Your task to perform on an android device: Open battery settings Image 0: 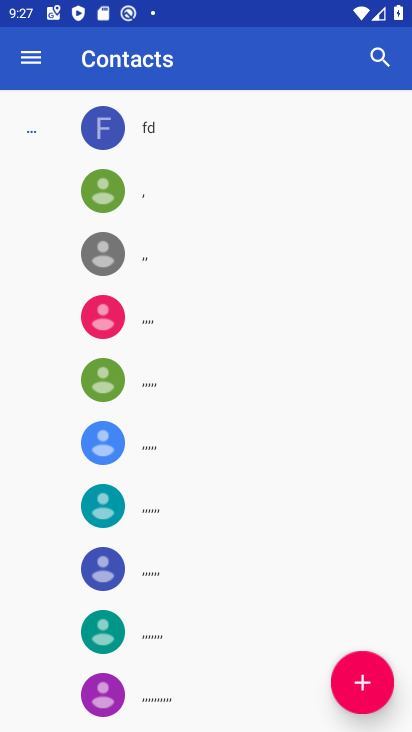
Step 0: click (401, 18)
Your task to perform on an android device: Open battery settings Image 1: 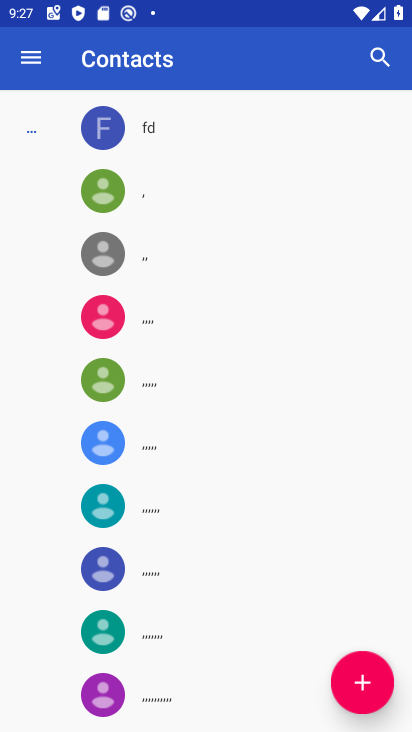
Step 1: click (308, 6)
Your task to perform on an android device: Open battery settings Image 2: 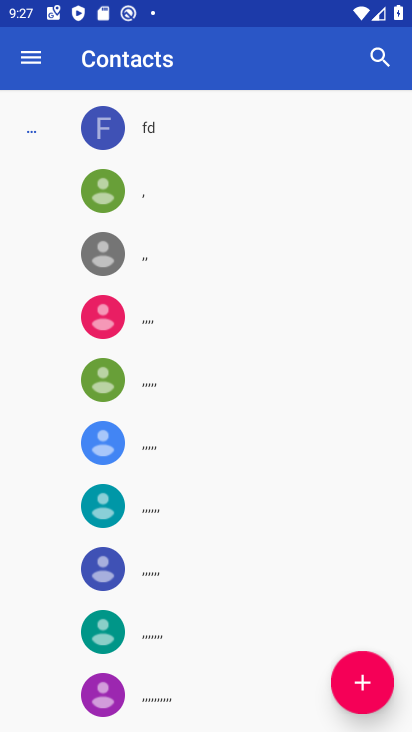
Step 2: click (308, 6)
Your task to perform on an android device: Open battery settings Image 3: 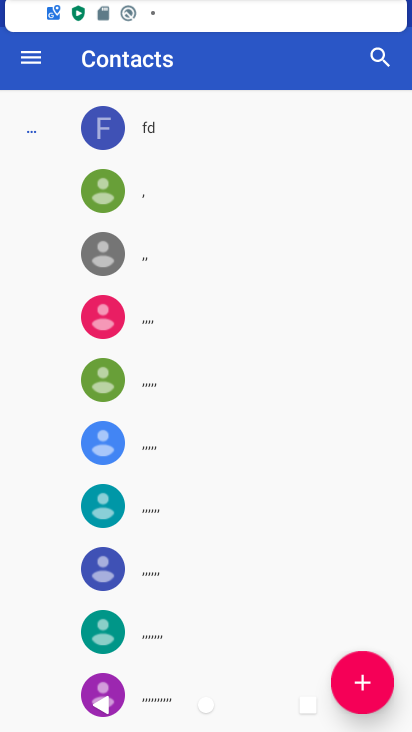
Step 3: click (308, 6)
Your task to perform on an android device: Open battery settings Image 4: 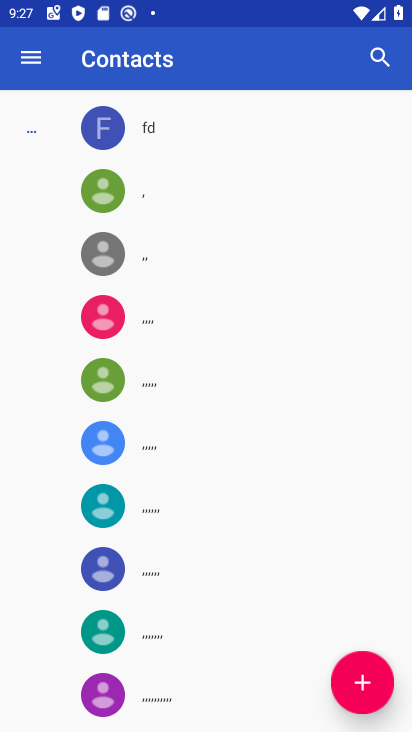
Step 4: click (308, 6)
Your task to perform on an android device: Open battery settings Image 5: 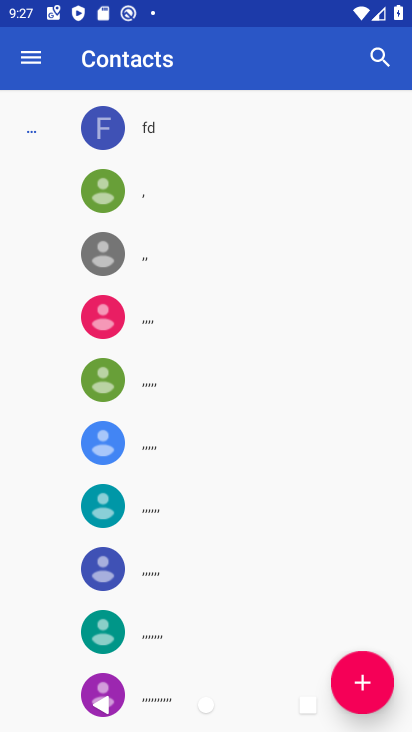
Step 5: drag from (308, 6) to (362, 383)
Your task to perform on an android device: Open battery settings Image 6: 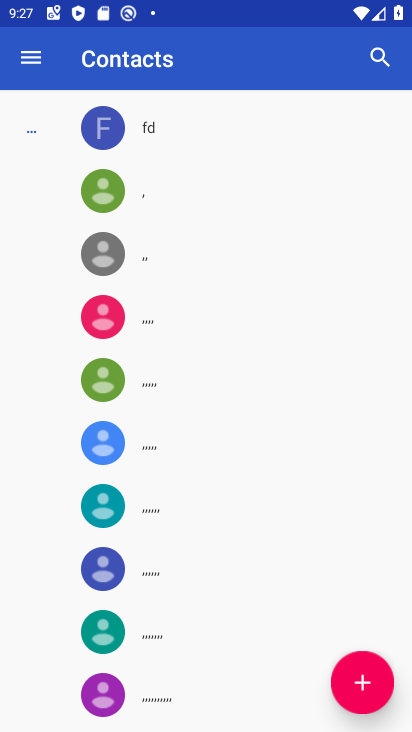
Step 6: drag from (230, 10) to (258, 341)
Your task to perform on an android device: Open battery settings Image 7: 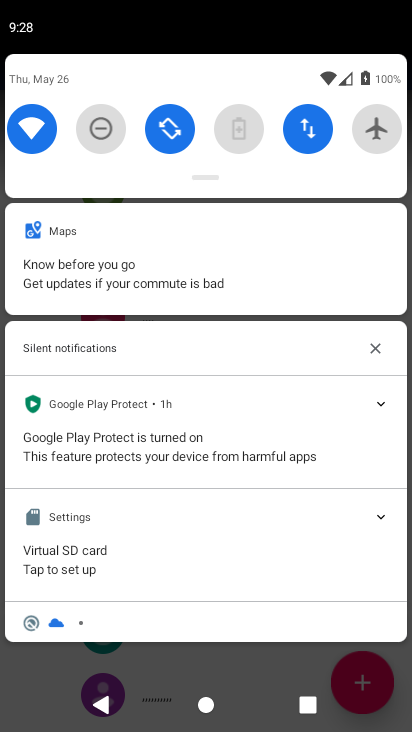
Step 7: click (249, 131)
Your task to perform on an android device: Open battery settings Image 8: 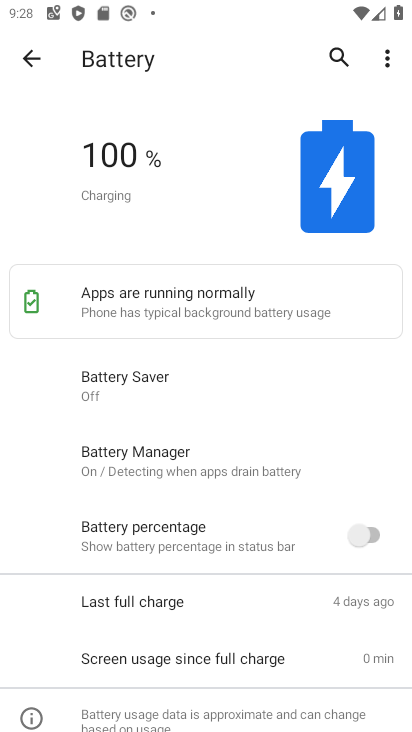
Step 8: task complete